Your task to perform on an android device: Turn on the flashlight Image 0: 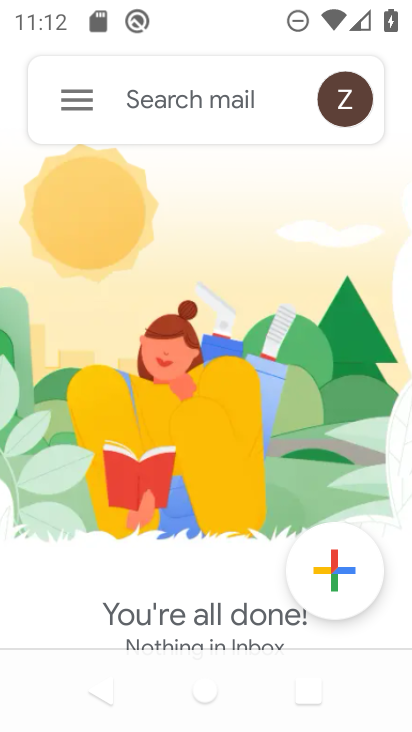
Step 0: press home button
Your task to perform on an android device: Turn on the flashlight Image 1: 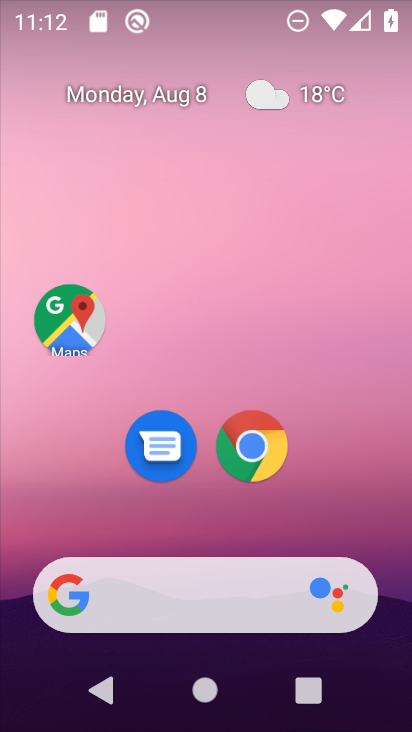
Step 1: drag from (220, 13) to (198, 714)
Your task to perform on an android device: Turn on the flashlight Image 2: 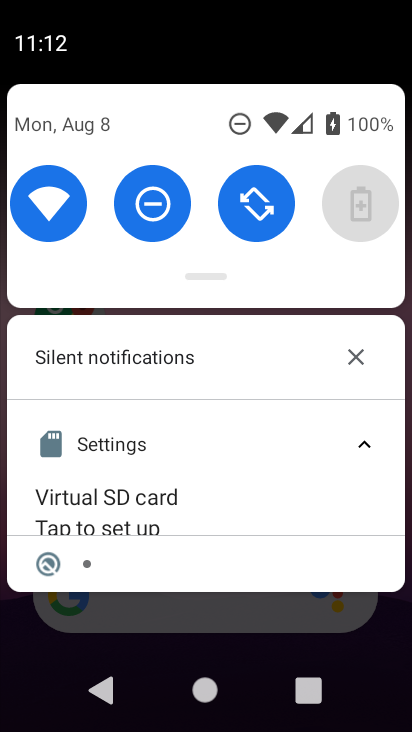
Step 2: drag from (209, 281) to (218, 568)
Your task to perform on an android device: Turn on the flashlight Image 3: 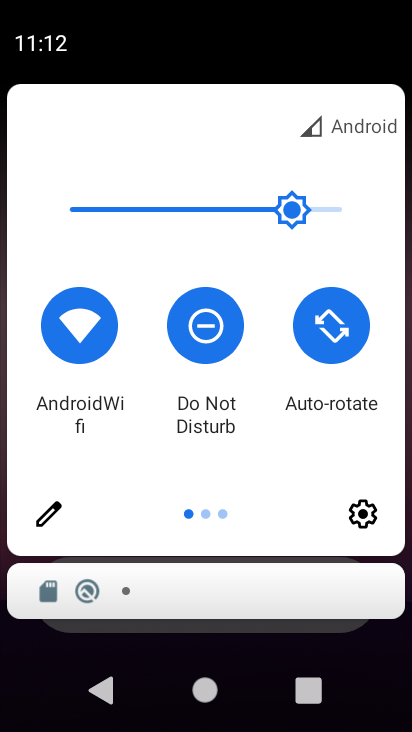
Step 3: click (37, 512)
Your task to perform on an android device: Turn on the flashlight Image 4: 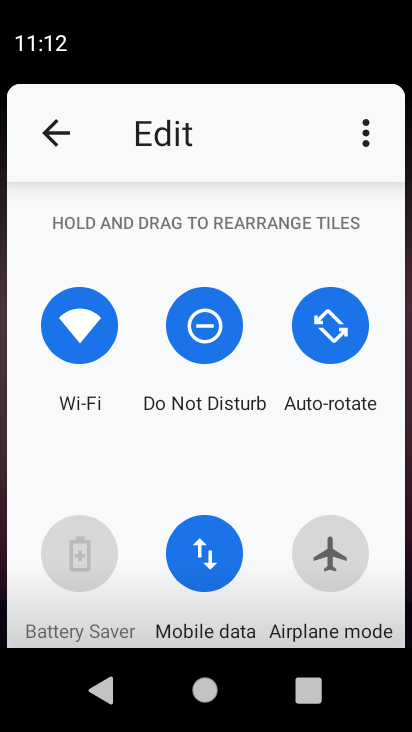
Step 4: task complete